Your task to perform on an android device: change timer sound Image 0: 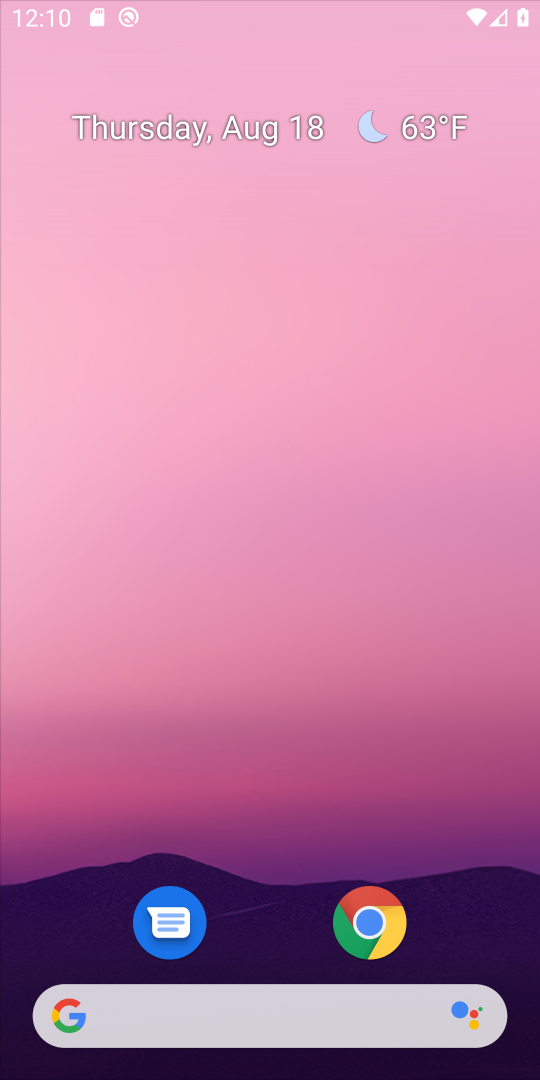
Step 0: press home button
Your task to perform on an android device: change timer sound Image 1: 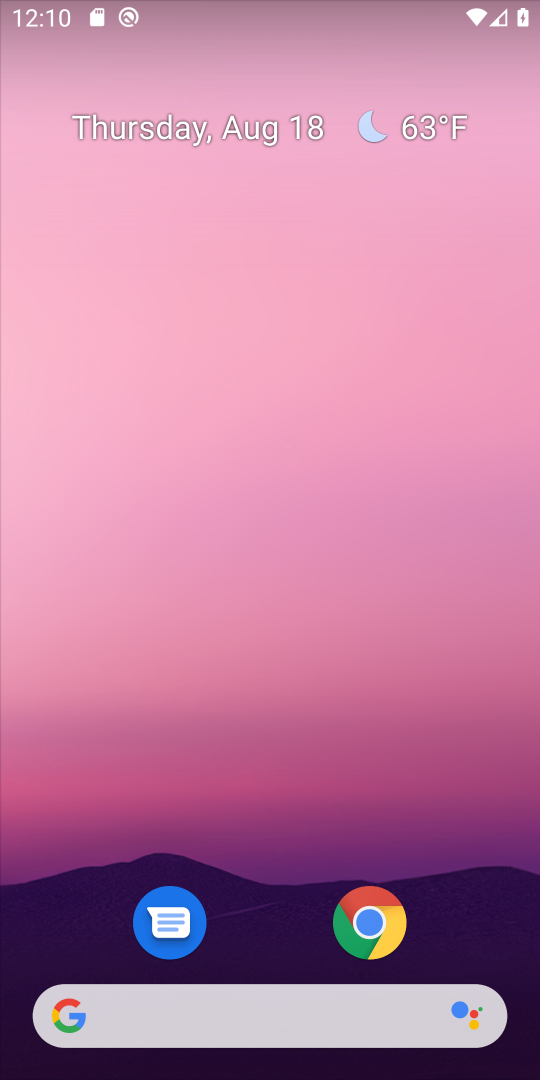
Step 1: drag from (275, 864) to (265, 133)
Your task to perform on an android device: change timer sound Image 2: 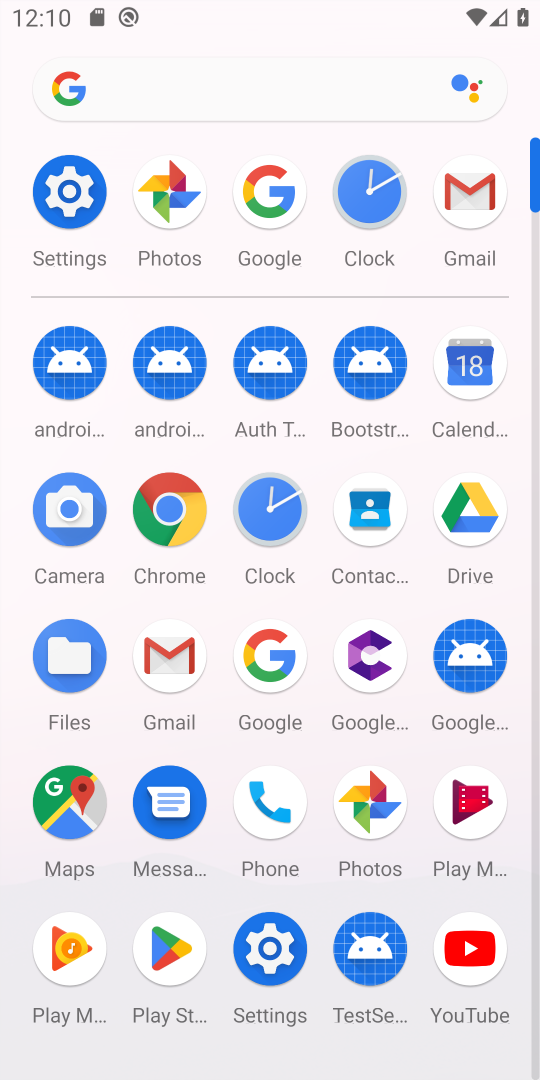
Step 2: click (365, 191)
Your task to perform on an android device: change timer sound Image 3: 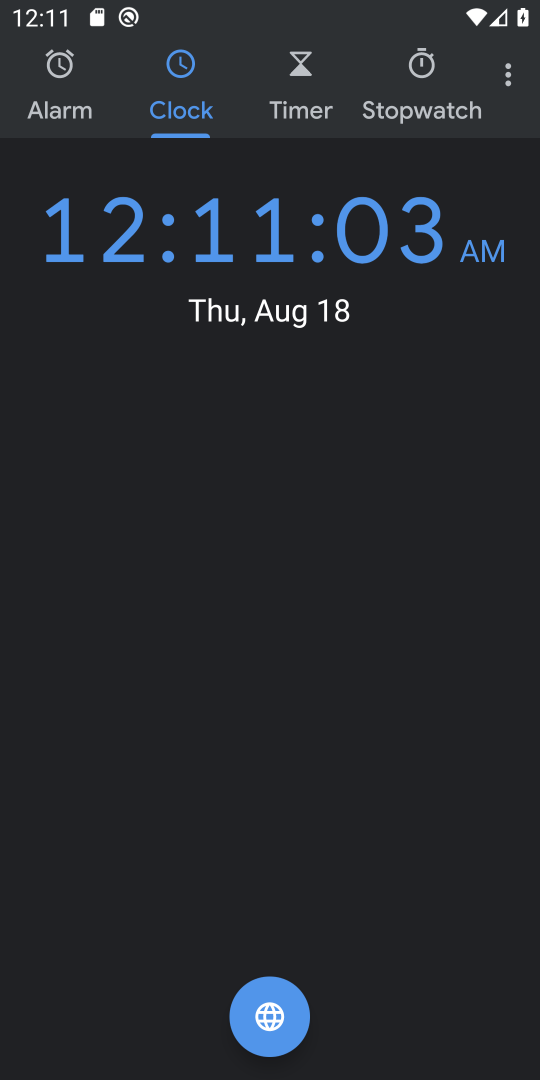
Step 3: click (506, 78)
Your task to perform on an android device: change timer sound Image 4: 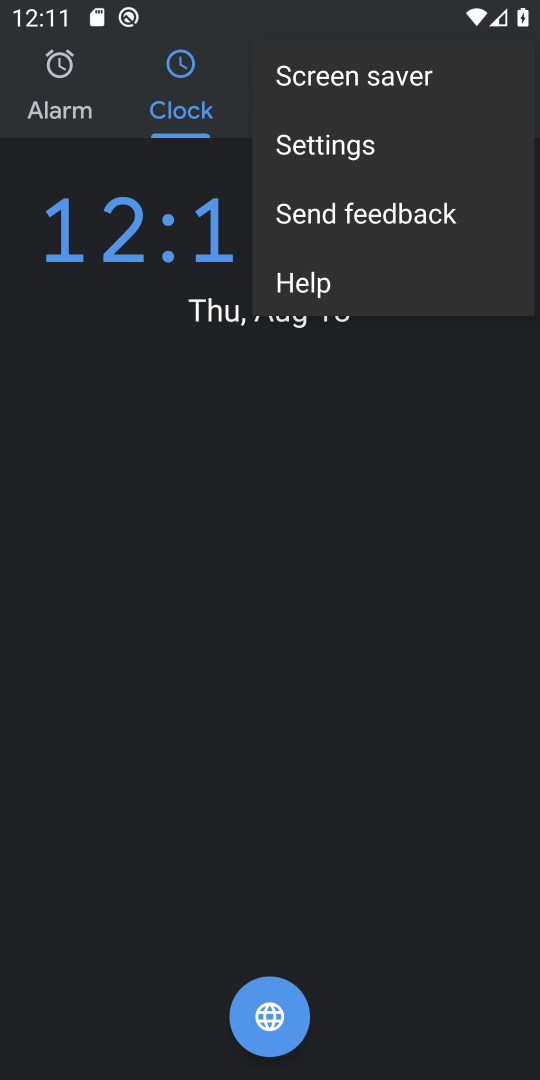
Step 4: click (328, 153)
Your task to perform on an android device: change timer sound Image 5: 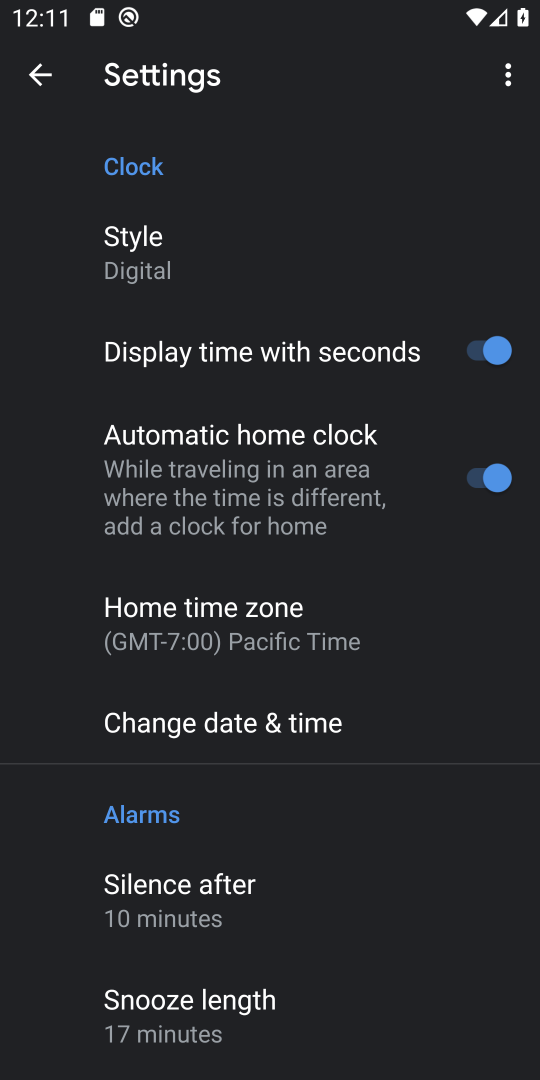
Step 5: drag from (359, 941) to (309, 549)
Your task to perform on an android device: change timer sound Image 6: 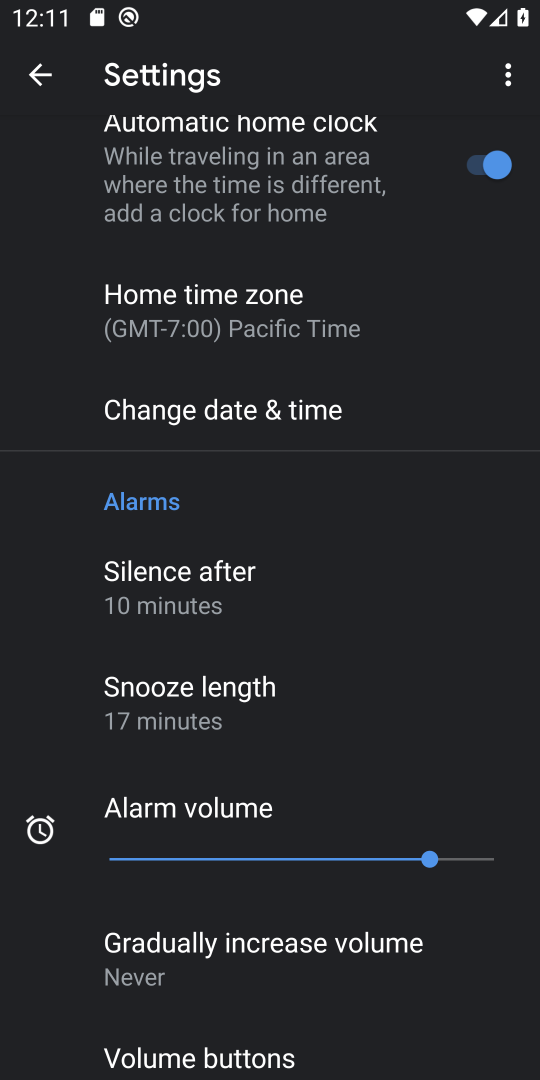
Step 6: drag from (335, 762) to (335, 351)
Your task to perform on an android device: change timer sound Image 7: 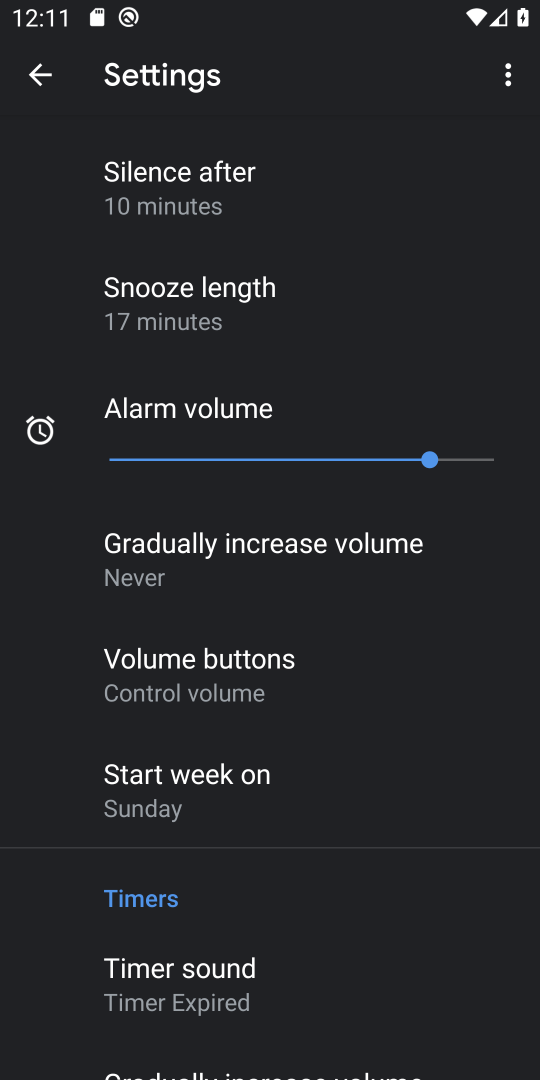
Step 7: click (197, 966)
Your task to perform on an android device: change timer sound Image 8: 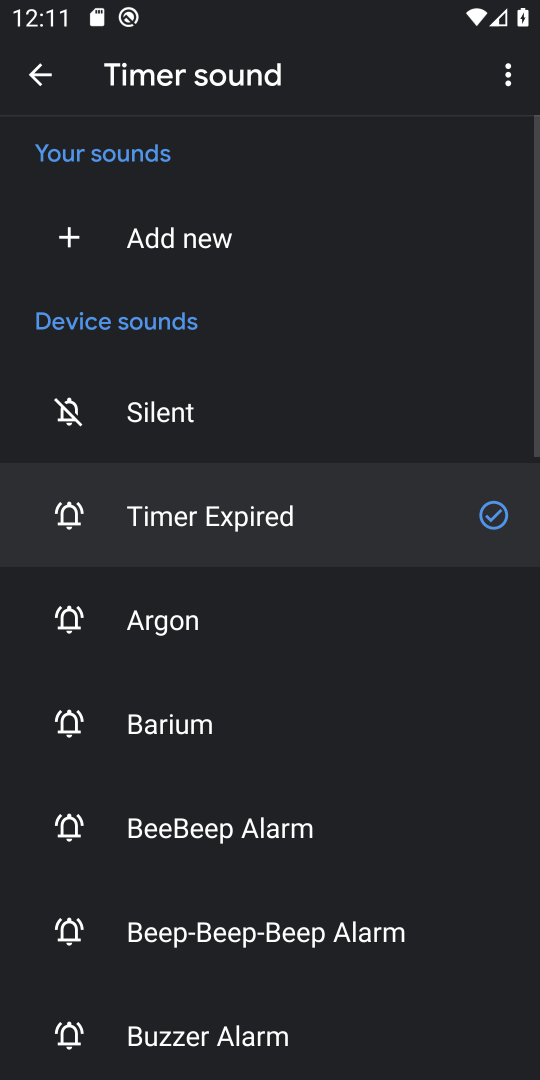
Step 8: click (151, 708)
Your task to perform on an android device: change timer sound Image 9: 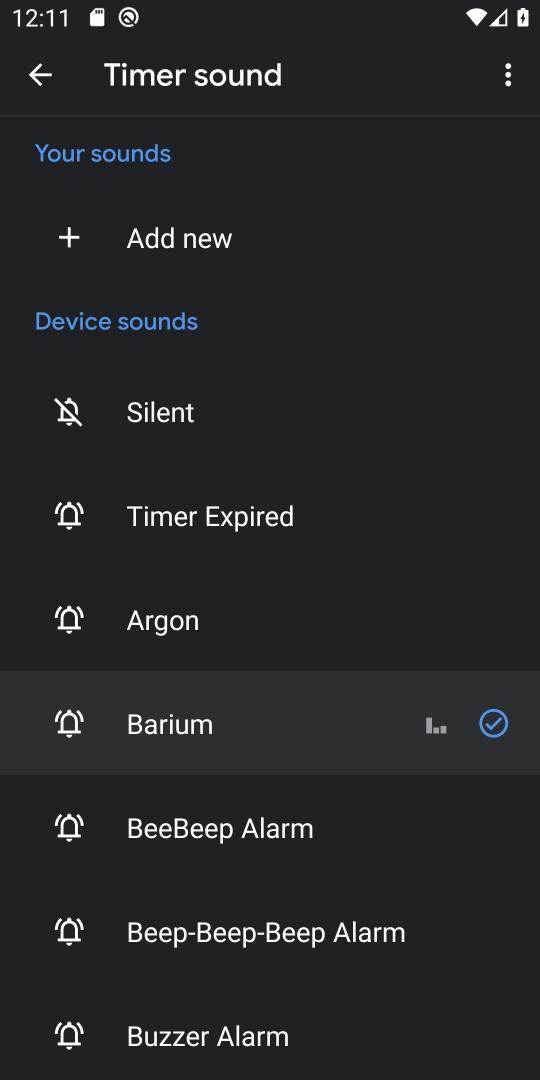
Step 9: task complete